Your task to perform on an android device: Open Amazon Image 0: 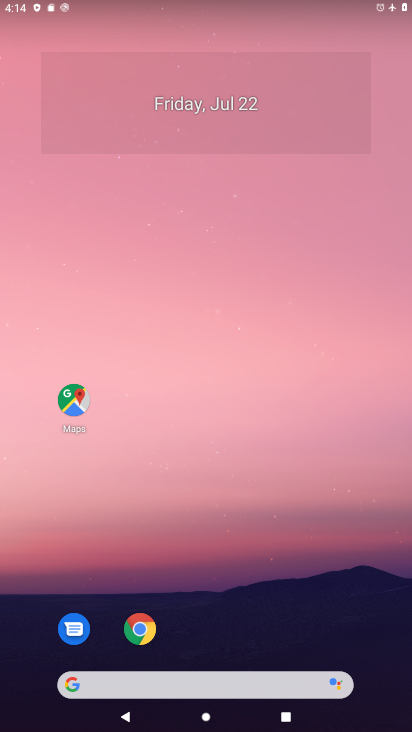
Step 0: drag from (330, 580) to (246, 54)
Your task to perform on an android device: Open Amazon Image 1: 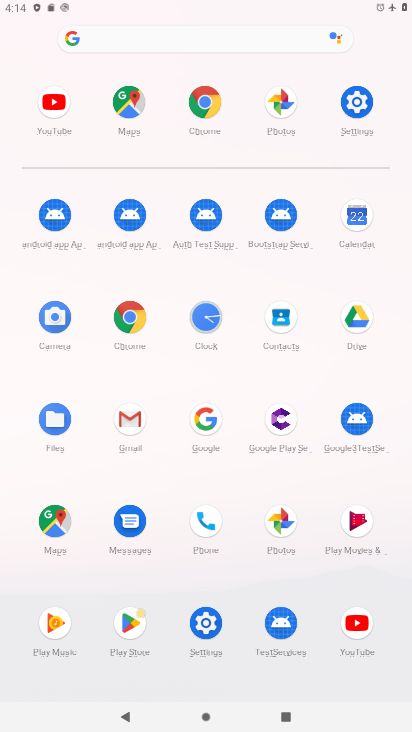
Step 1: click (203, 103)
Your task to perform on an android device: Open Amazon Image 2: 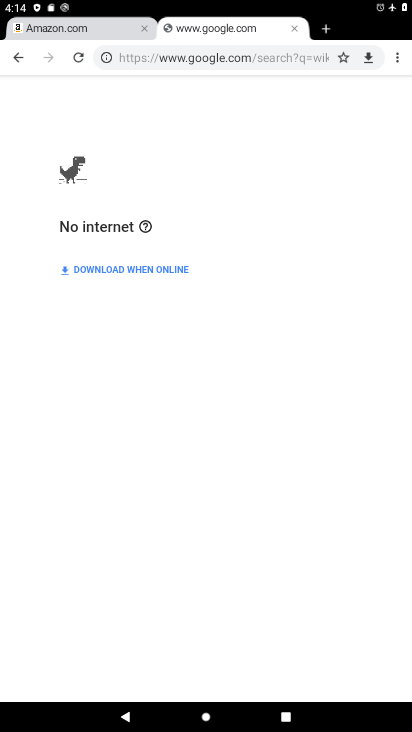
Step 2: click (233, 62)
Your task to perform on an android device: Open Amazon Image 3: 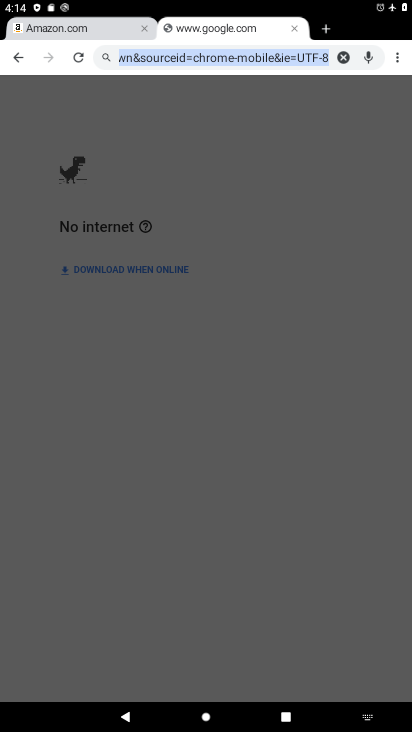
Step 3: type "amazon"
Your task to perform on an android device: Open Amazon Image 4: 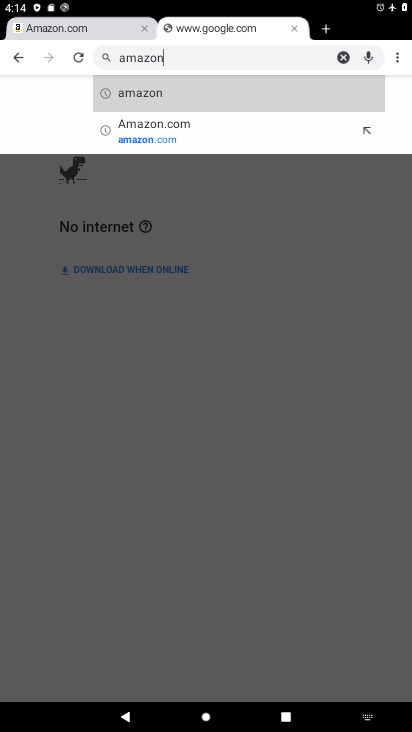
Step 4: click (181, 121)
Your task to perform on an android device: Open Amazon Image 5: 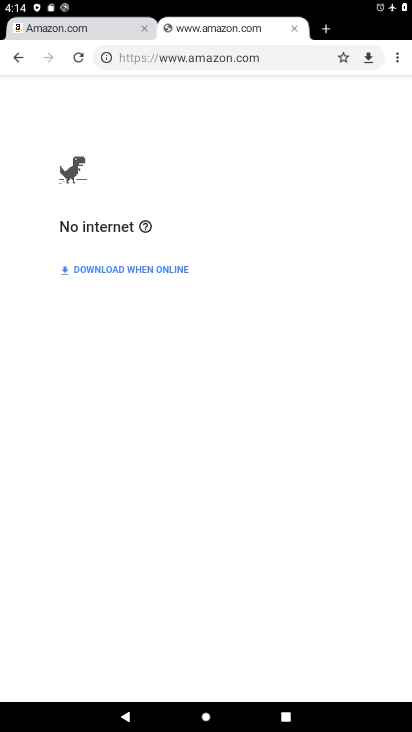
Step 5: task complete